Your task to perform on an android device: check battery use Image 0: 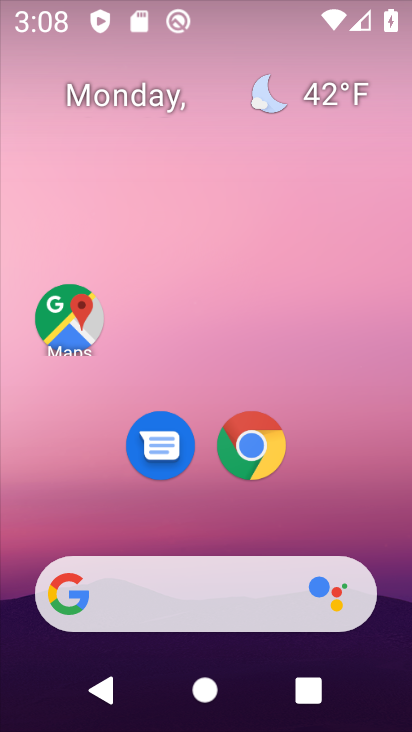
Step 0: drag from (3, 502) to (145, 37)
Your task to perform on an android device: check battery use Image 1: 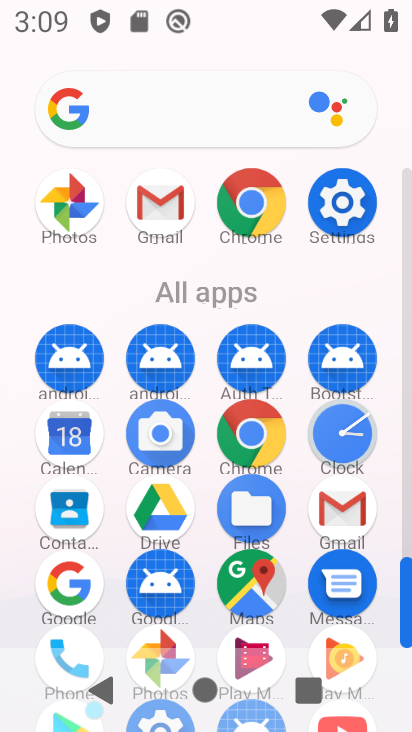
Step 1: click (324, 207)
Your task to perform on an android device: check battery use Image 2: 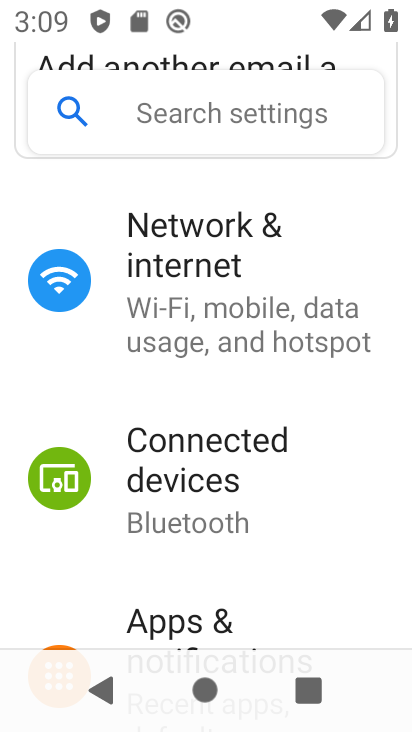
Step 2: drag from (181, 526) to (271, 230)
Your task to perform on an android device: check battery use Image 3: 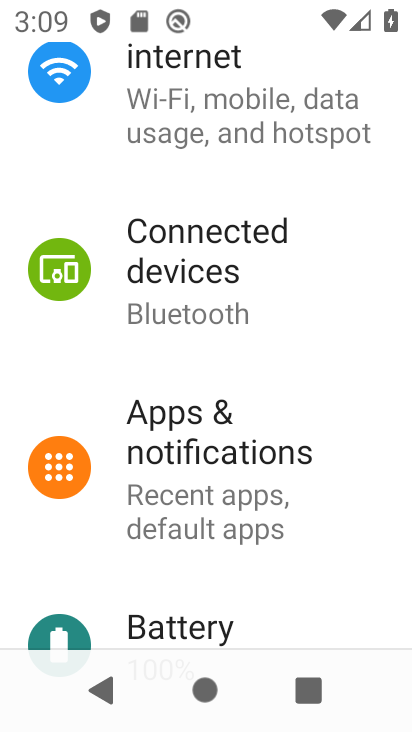
Step 3: click (230, 628)
Your task to perform on an android device: check battery use Image 4: 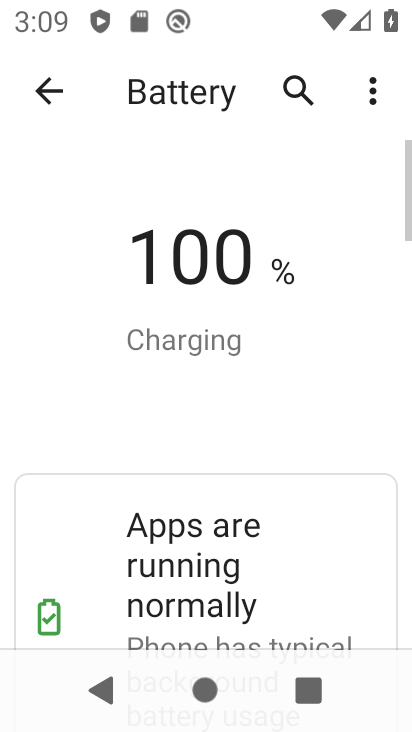
Step 4: click (373, 80)
Your task to perform on an android device: check battery use Image 5: 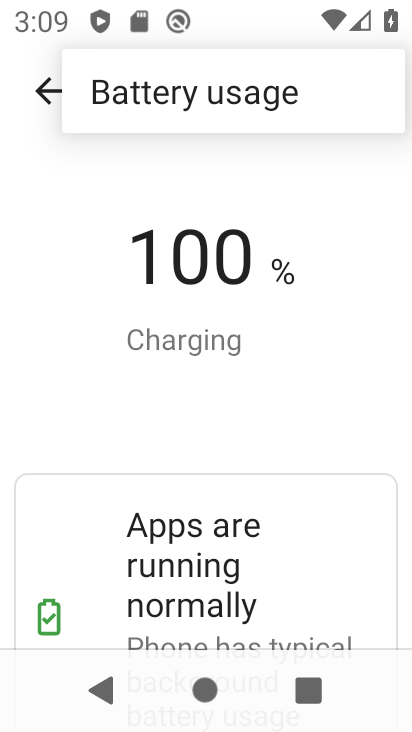
Step 5: click (283, 90)
Your task to perform on an android device: check battery use Image 6: 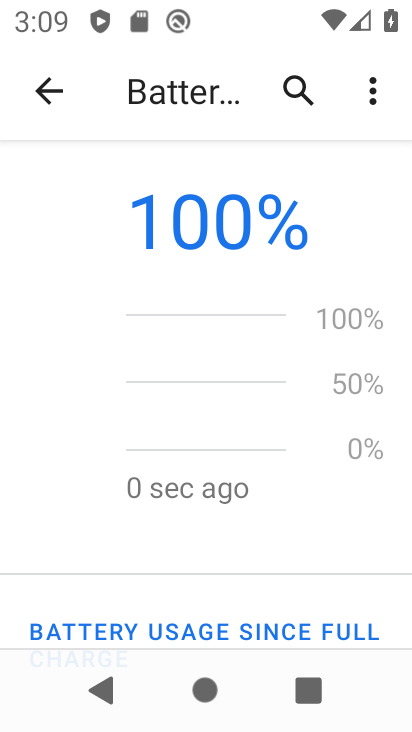
Step 6: task complete